Your task to perform on an android device: Go to ESPN.com Image 0: 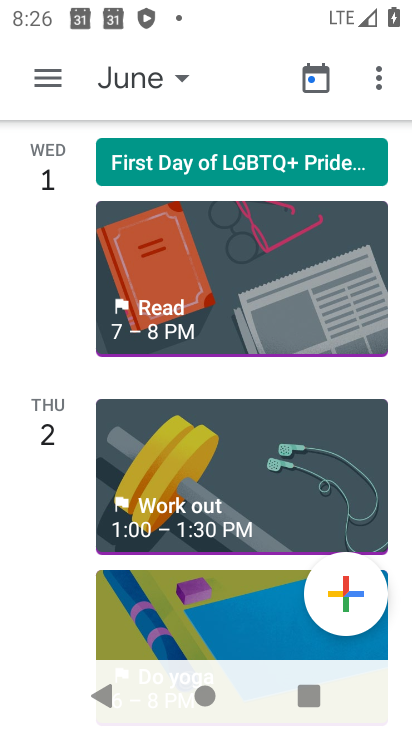
Step 0: press home button
Your task to perform on an android device: Go to ESPN.com Image 1: 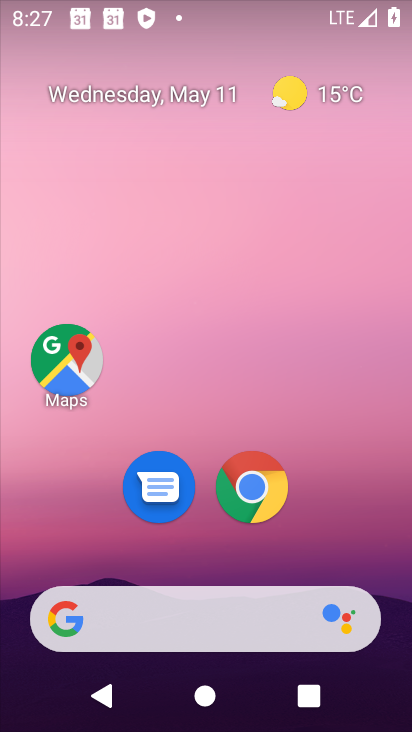
Step 1: drag from (239, 672) to (204, 219)
Your task to perform on an android device: Go to ESPN.com Image 2: 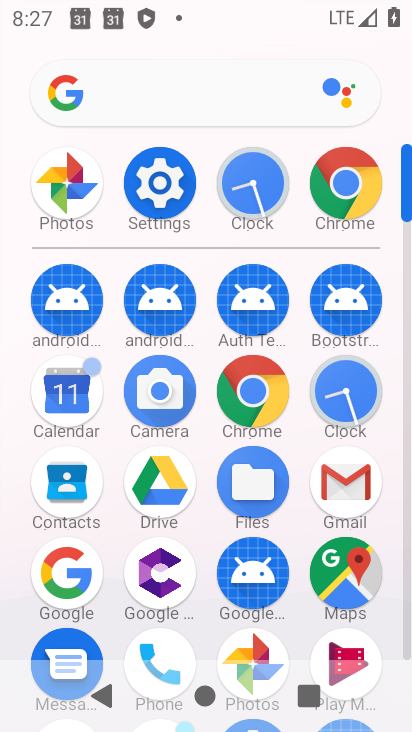
Step 2: click (328, 189)
Your task to perform on an android device: Go to ESPN.com Image 3: 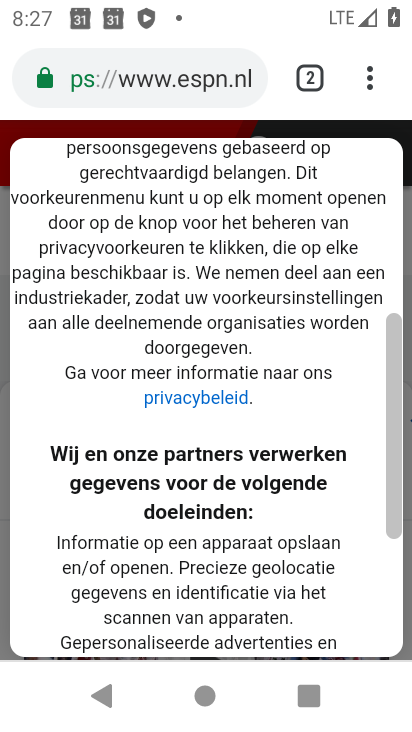
Step 3: drag from (284, 477) to (260, 294)
Your task to perform on an android device: Go to ESPN.com Image 4: 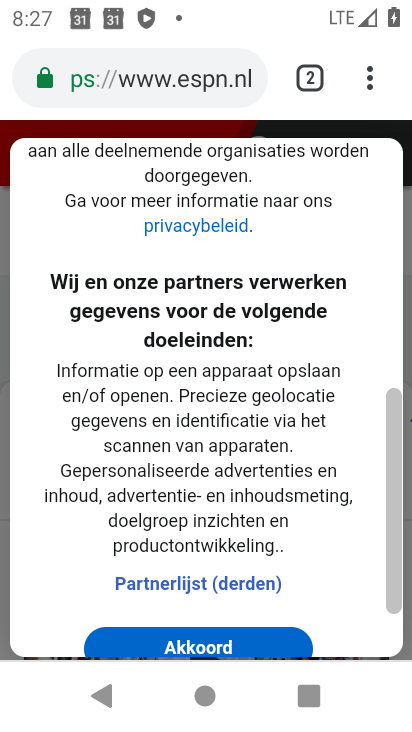
Step 4: click (231, 639)
Your task to perform on an android device: Go to ESPN.com Image 5: 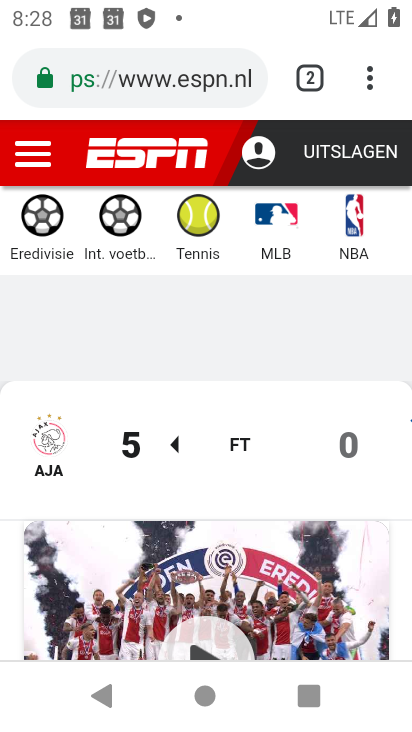
Step 5: task complete